Your task to perform on an android device: Find coffee shops on Maps Image 0: 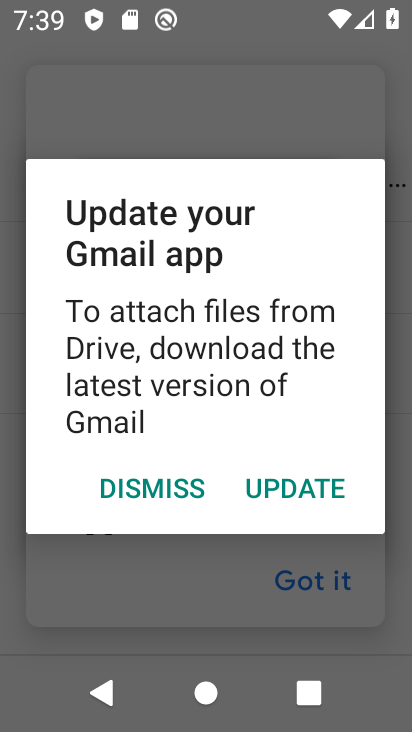
Step 0: press back button
Your task to perform on an android device: Find coffee shops on Maps Image 1: 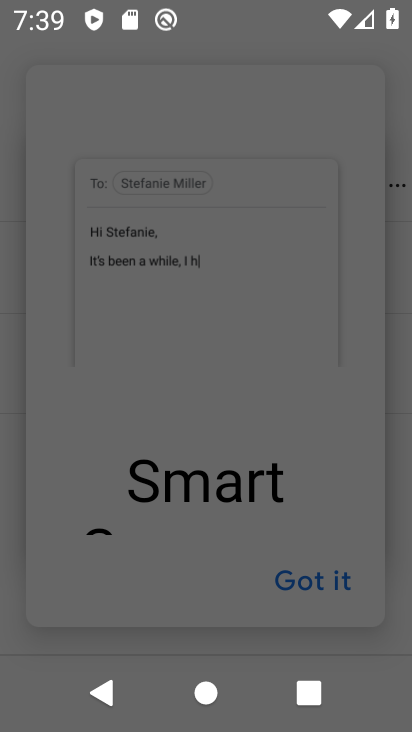
Step 1: press back button
Your task to perform on an android device: Find coffee shops on Maps Image 2: 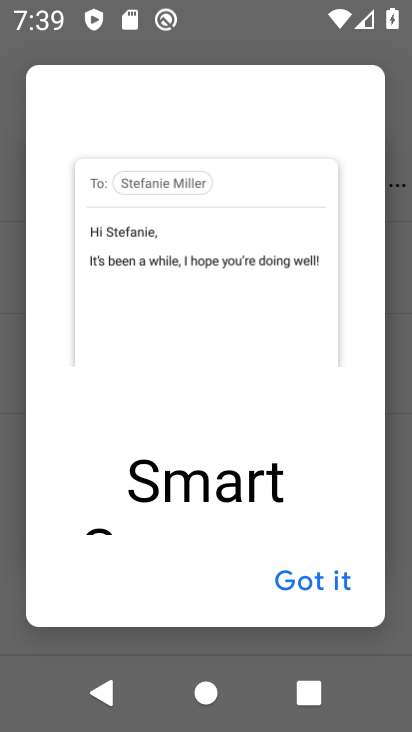
Step 2: press home button
Your task to perform on an android device: Find coffee shops on Maps Image 3: 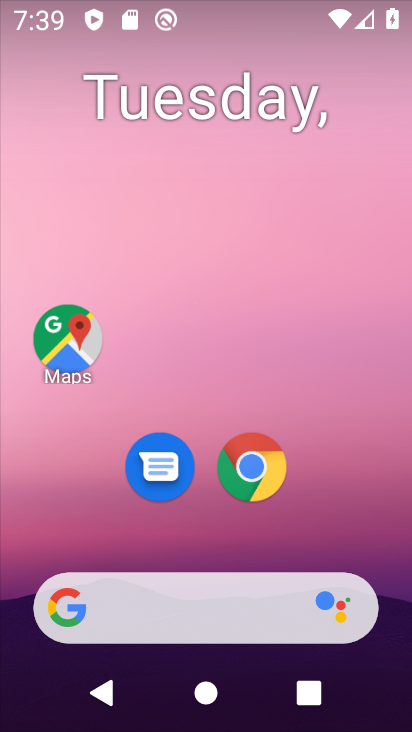
Step 3: click (52, 323)
Your task to perform on an android device: Find coffee shops on Maps Image 4: 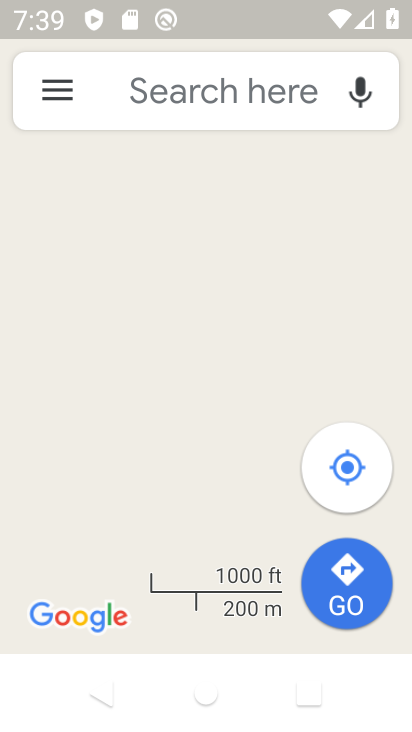
Step 4: click (250, 109)
Your task to perform on an android device: Find coffee shops on Maps Image 5: 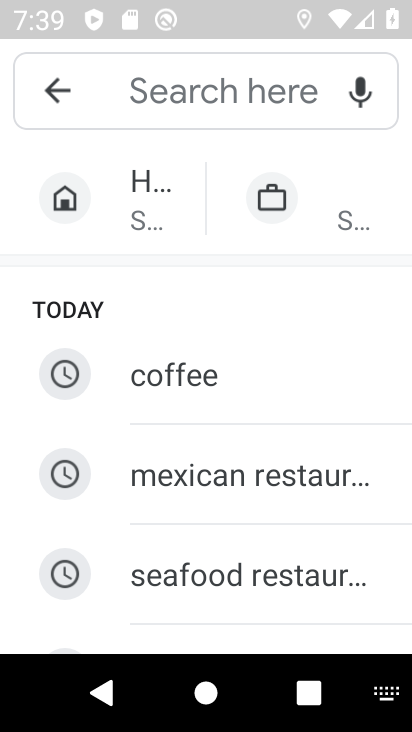
Step 5: type "coffee"
Your task to perform on an android device: Find coffee shops on Maps Image 6: 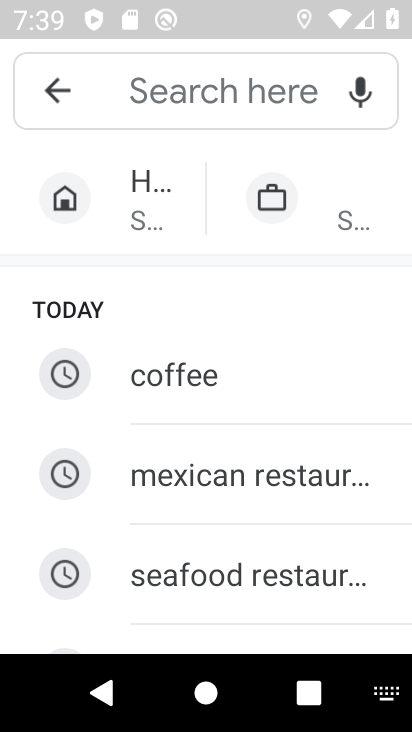
Step 6: click (317, 361)
Your task to perform on an android device: Find coffee shops on Maps Image 7: 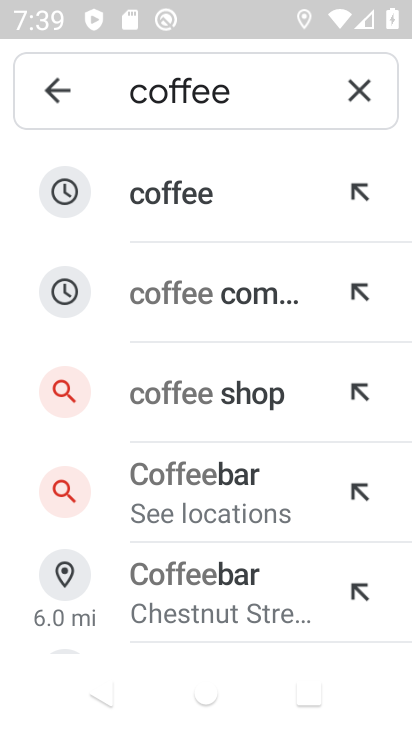
Step 7: click (245, 406)
Your task to perform on an android device: Find coffee shops on Maps Image 8: 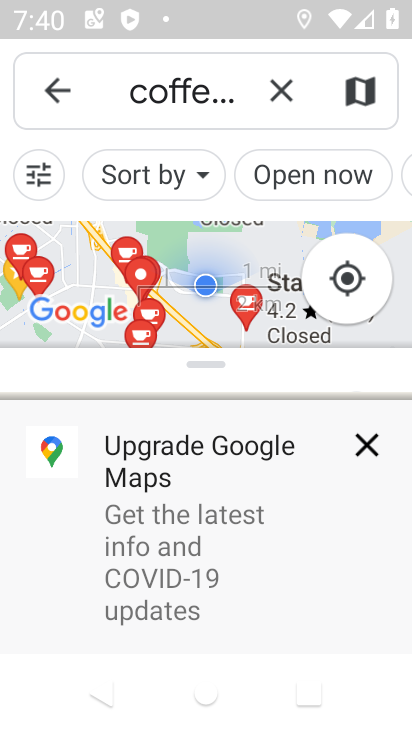
Step 8: click (370, 443)
Your task to perform on an android device: Find coffee shops on Maps Image 9: 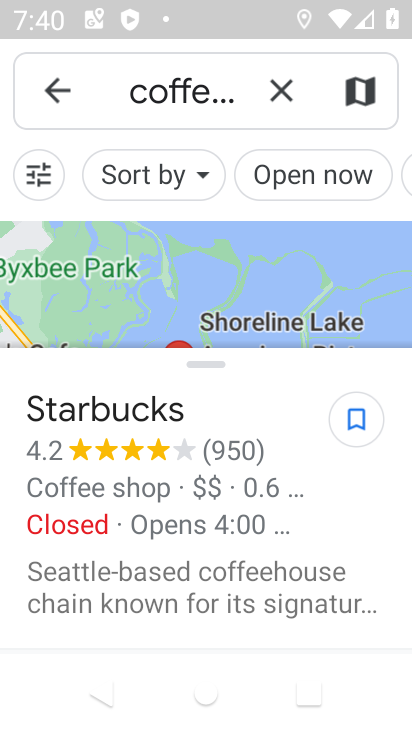
Step 9: task complete